Your task to perform on an android device: check battery use Image 0: 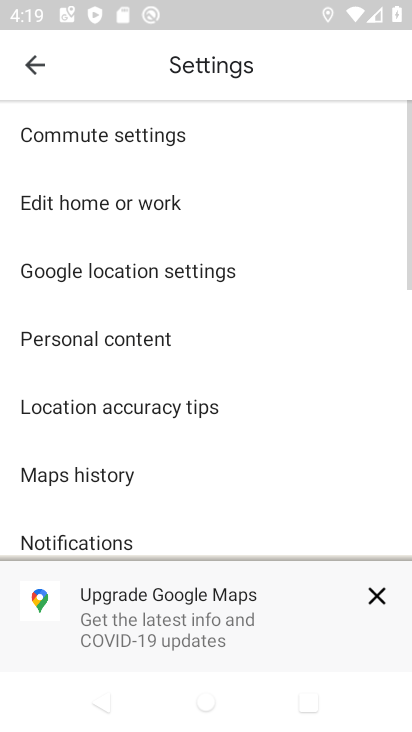
Step 0: press back button
Your task to perform on an android device: check battery use Image 1: 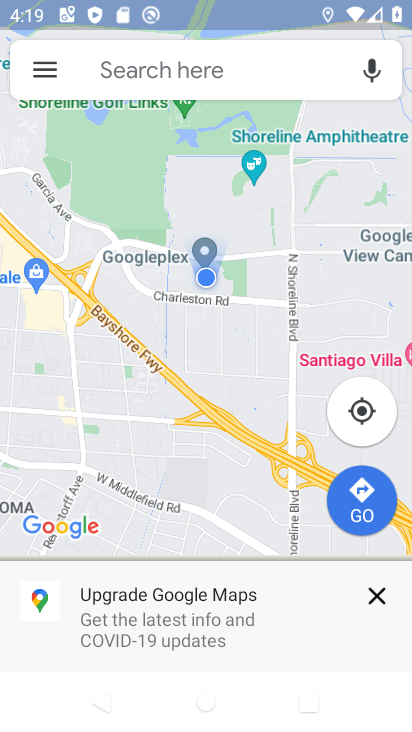
Step 1: press back button
Your task to perform on an android device: check battery use Image 2: 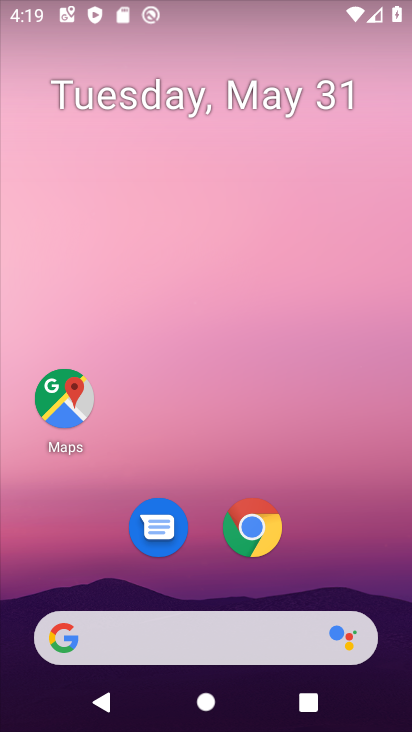
Step 2: drag from (356, 528) to (15, 36)
Your task to perform on an android device: check battery use Image 3: 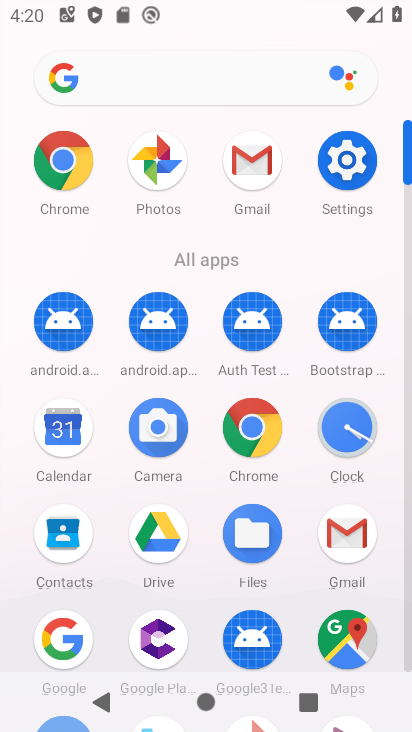
Step 3: click (347, 155)
Your task to perform on an android device: check battery use Image 4: 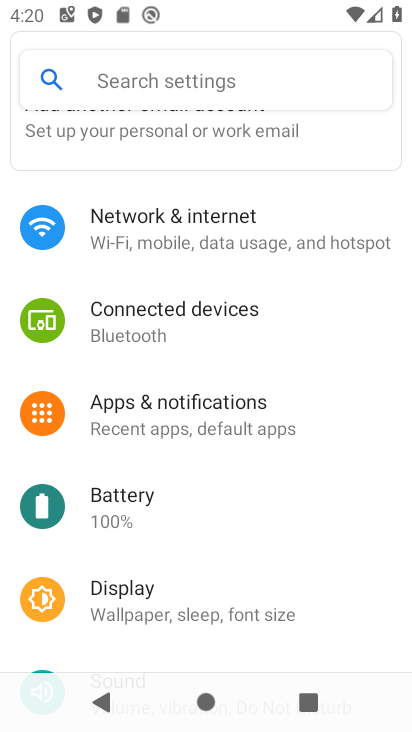
Step 4: click (158, 506)
Your task to perform on an android device: check battery use Image 5: 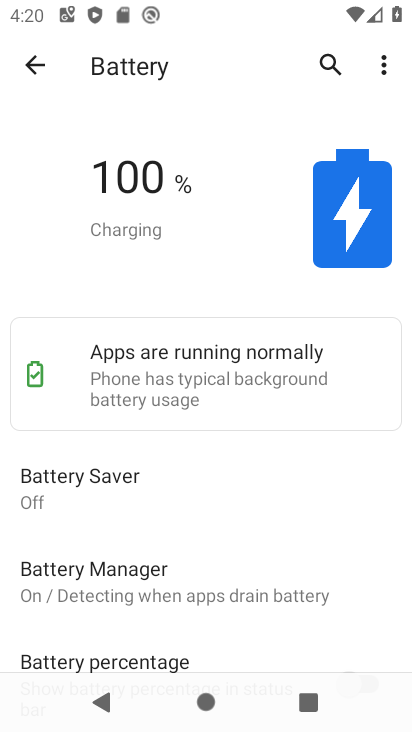
Step 5: task complete